Your task to perform on an android device: Clear the shopping cart on newegg. Image 0: 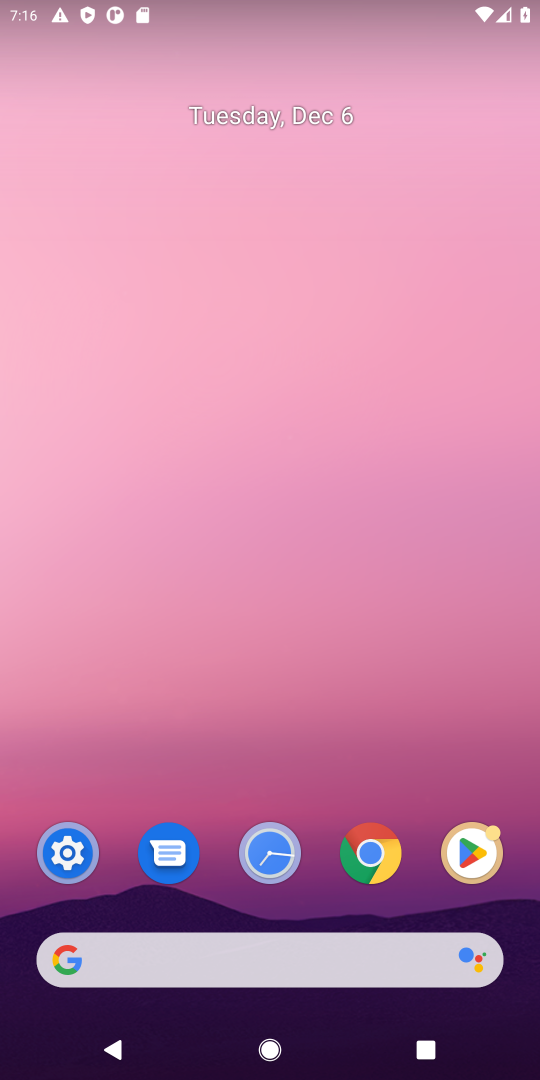
Step 0: click (393, 844)
Your task to perform on an android device: Clear the shopping cart on newegg. Image 1: 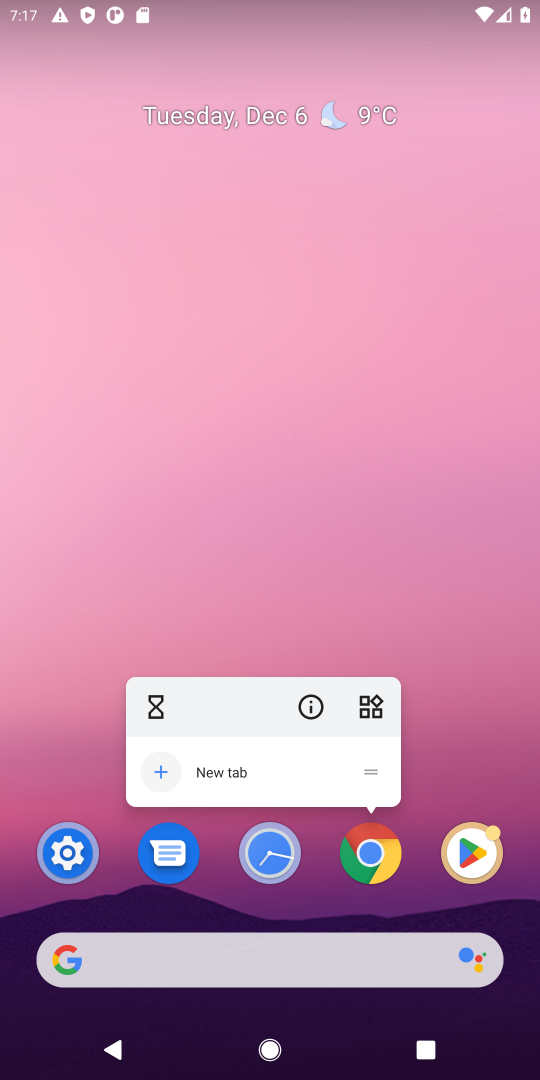
Step 1: click (393, 844)
Your task to perform on an android device: Clear the shopping cart on newegg. Image 2: 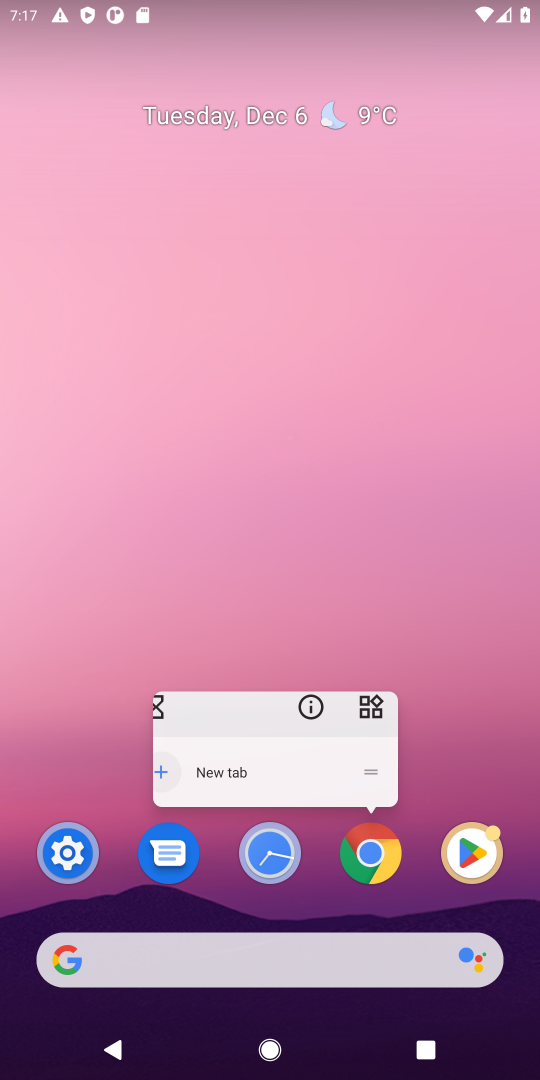
Step 2: click (393, 844)
Your task to perform on an android device: Clear the shopping cart on newegg. Image 3: 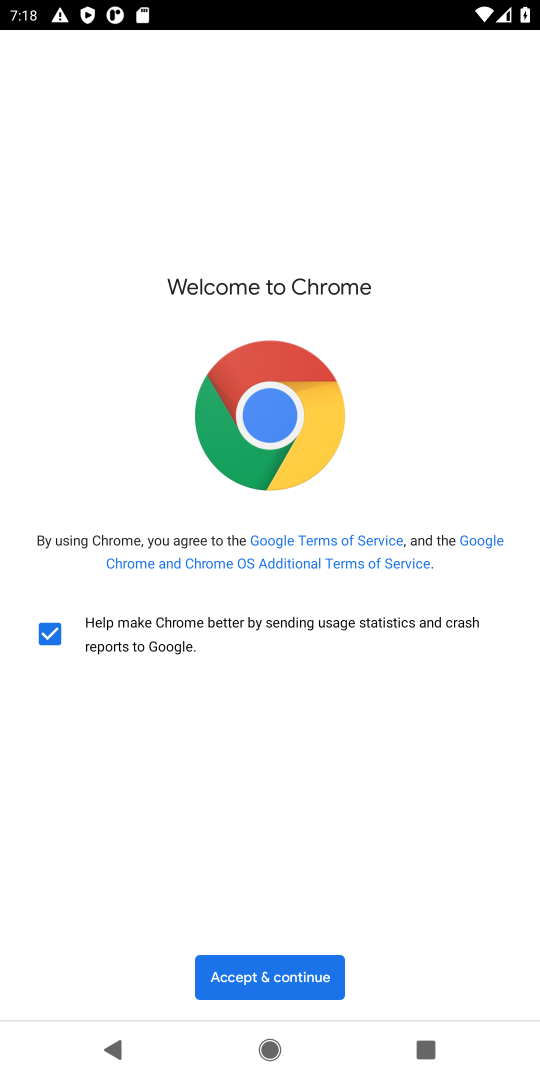
Step 3: click (247, 983)
Your task to perform on an android device: Clear the shopping cart on newegg. Image 4: 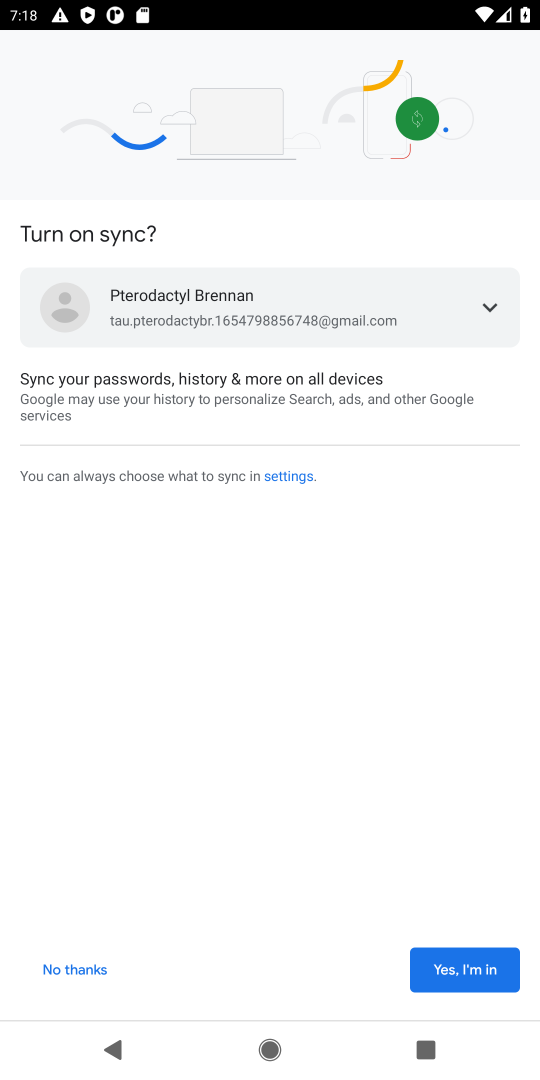
Step 4: click (438, 960)
Your task to perform on an android device: Clear the shopping cart on newegg. Image 5: 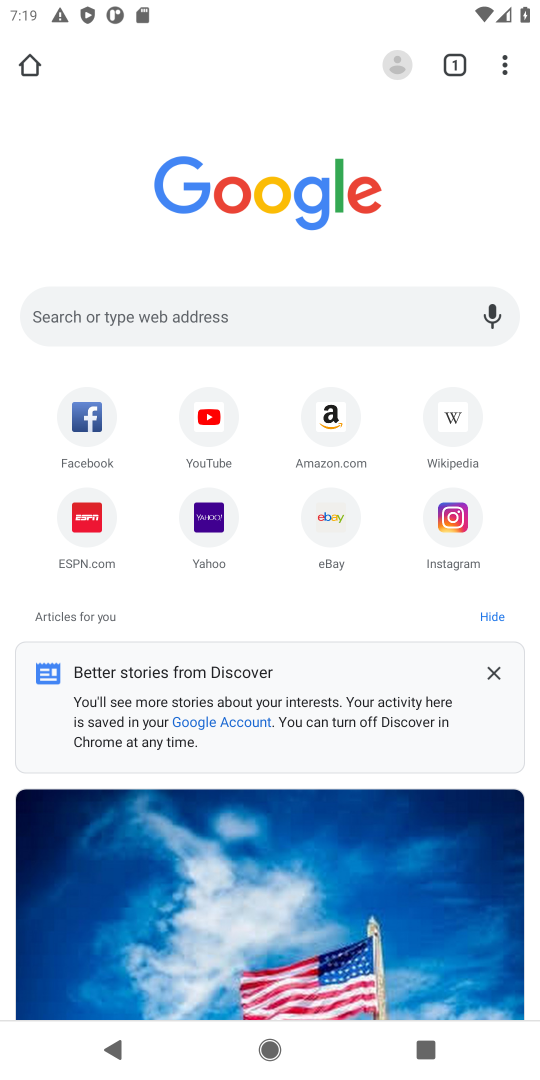
Step 5: click (334, 305)
Your task to perform on an android device: Clear the shopping cart on newegg. Image 6: 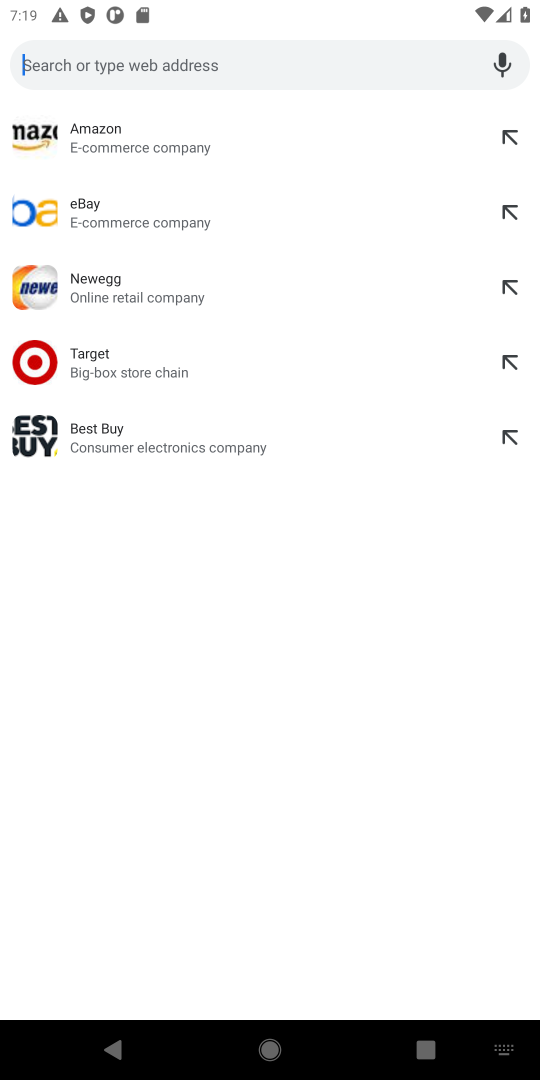
Step 6: click (148, 307)
Your task to perform on an android device: Clear the shopping cart on newegg. Image 7: 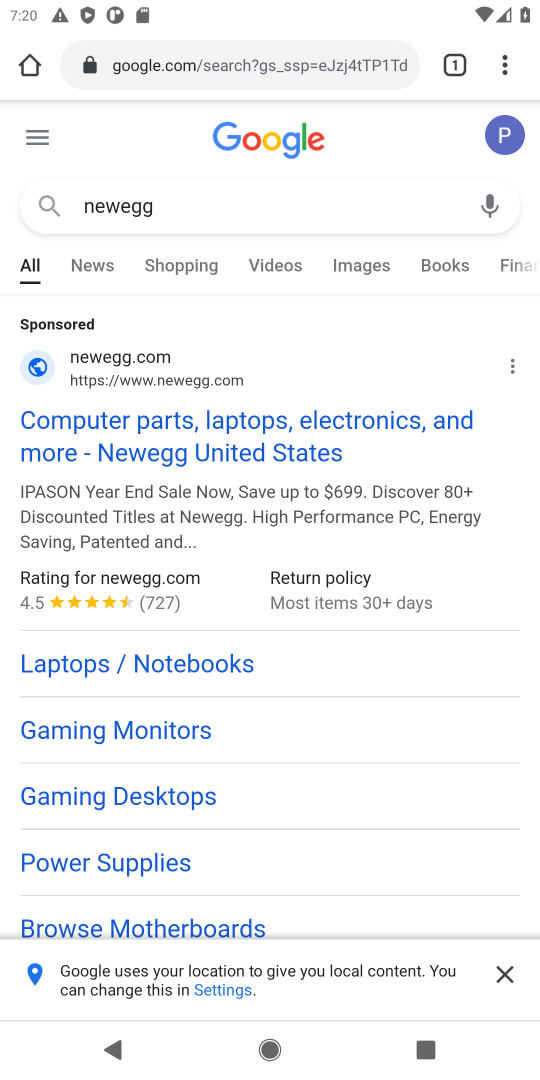
Step 7: click (175, 438)
Your task to perform on an android device: Clear the shopping cart on newegg. Image 8: 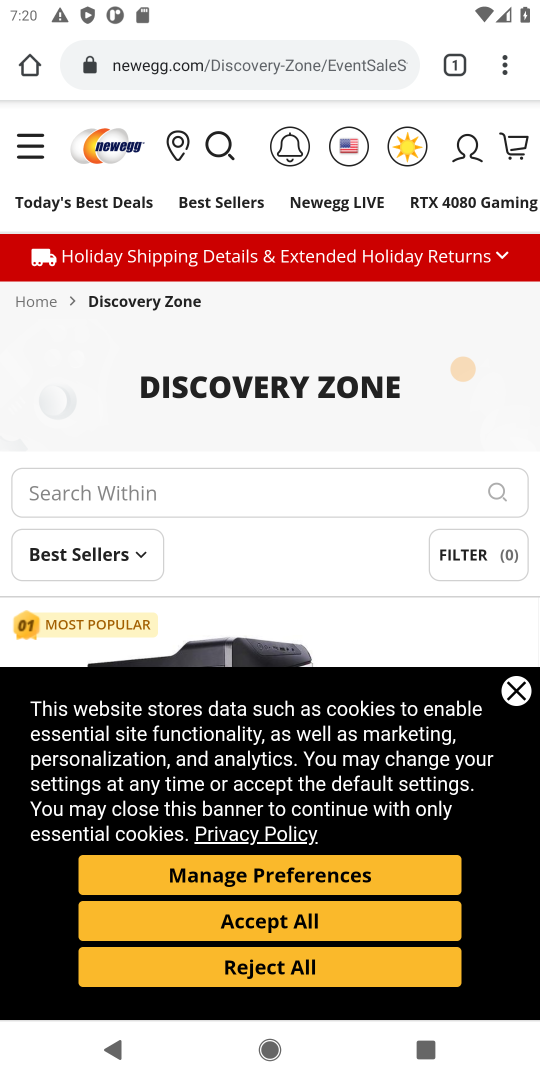
Step 8: click (511, 686)
Your task to perform on an android device: Clear the shopping cart on newegg. Image 9: 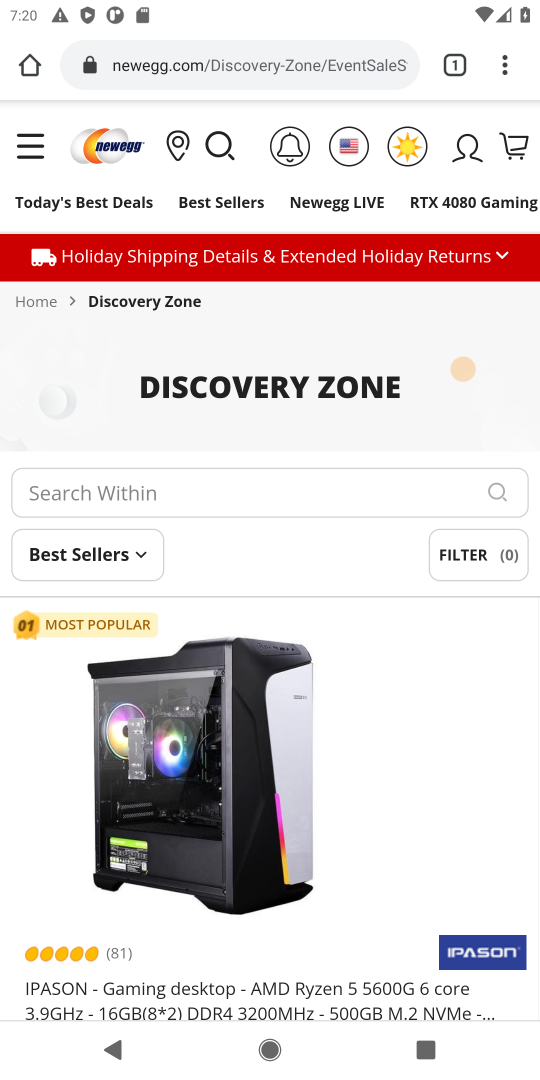
Step 9: click (514, 143)
Your task to perform on an android device: Clear the shopping cart on newegg. Image 10: 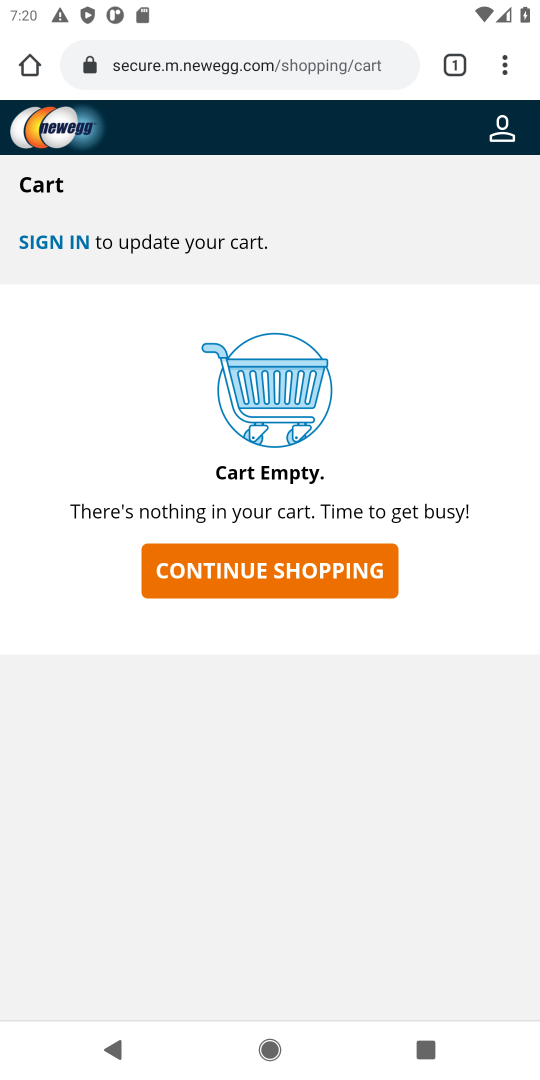
Step 10: task complete